Your task to perform on an android device: Go to sound settings Image 0: 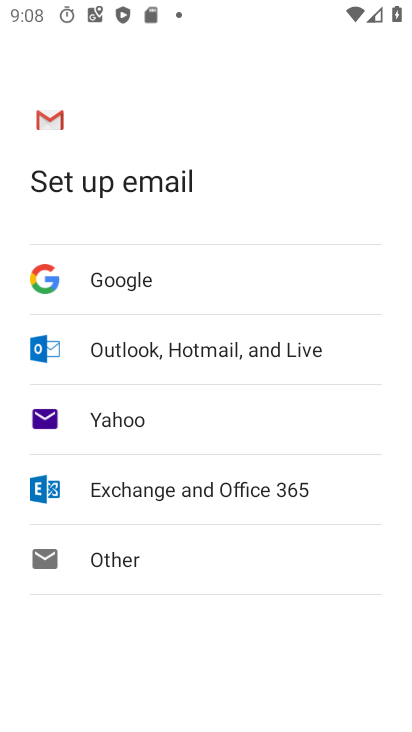
Step 0: press back button
Your task to perform on an android device: Go to sound settings Image 1: 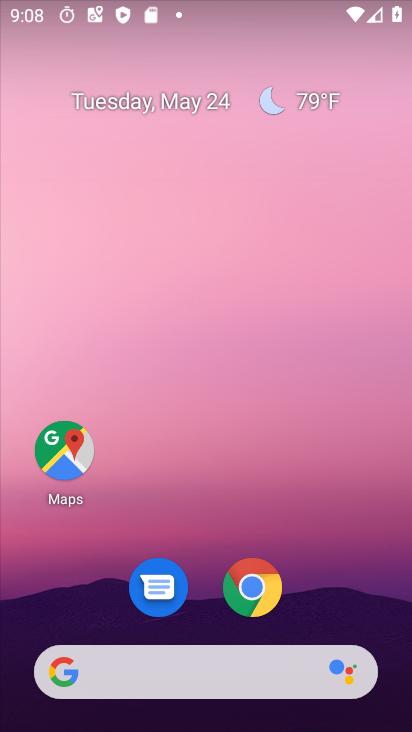
Step 1: drag from (334, 597) to (168, 134)
Your task to perform on an android device: Go to sound settings Image 2: 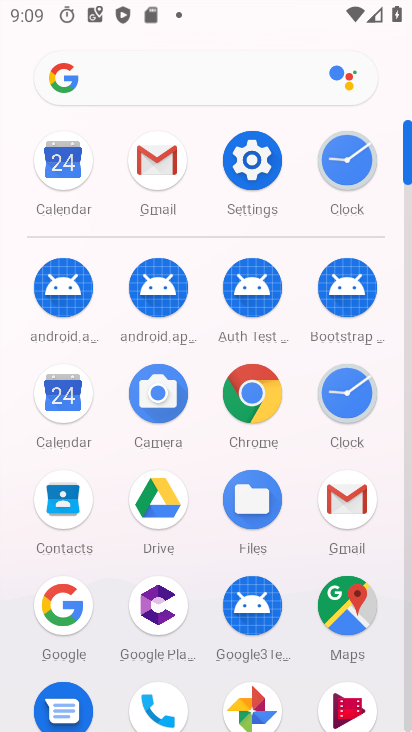
Step 2: click (253, 159)
Your task to perform on an android device: Go to sound settings Image 3: 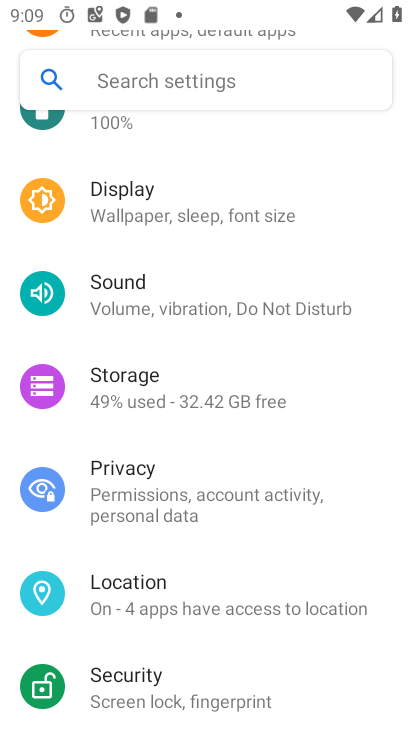
Step 3: click (215, 312)
Your task to perform on an android device: Go to sound settings Image 4: 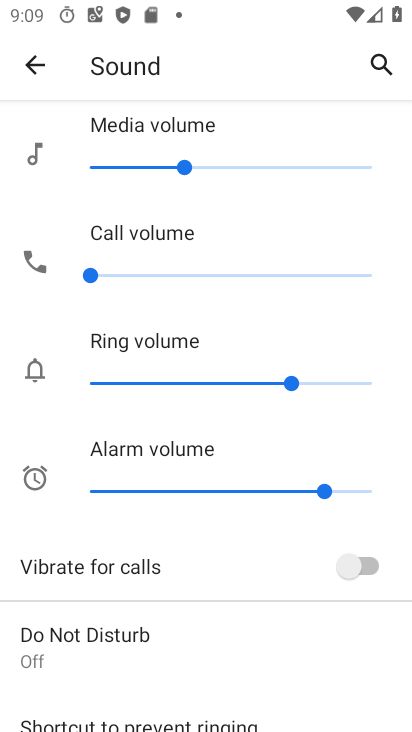
Step 4: task complete